Your task to perform on an android device: Do I have any events tomorrow? Image 0: 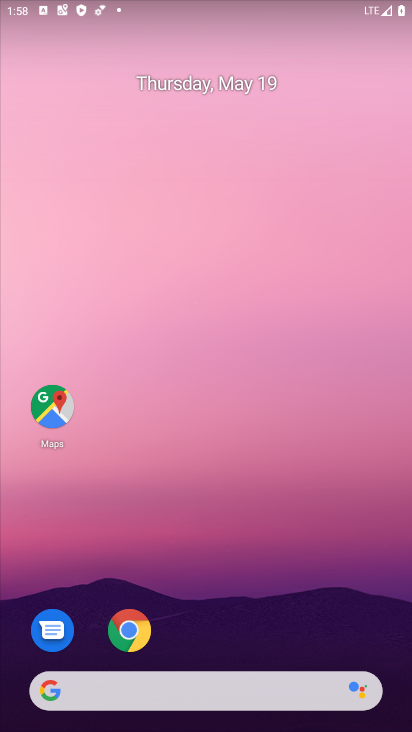
Step 0: click (50, 404)
Your task to perform on an android device: Do I have any events tomorrow? Image 1: 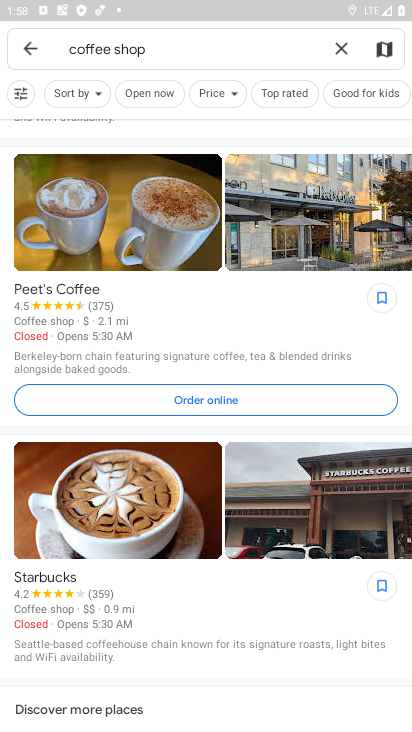
Step 1: click (339, 44)
Your task to perform on an android device: Do I have any events tomorrow? Image 2: 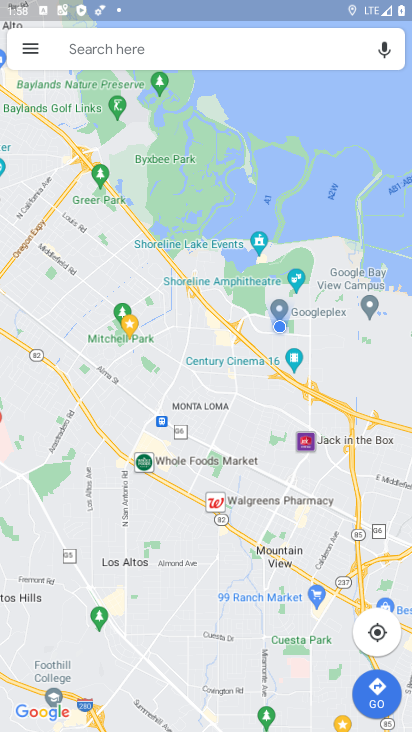
Step 2: press home button
Your task to perform on an android device: Do I have any events tomorrow? Image 3: 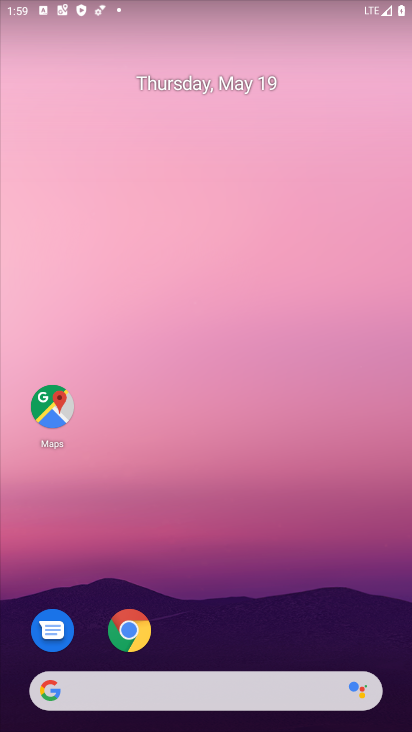
Step 3: drag from (373, 619) to (308, 32)
Your task to perform on an android device: Do I have any events tomorrow? Image 4: 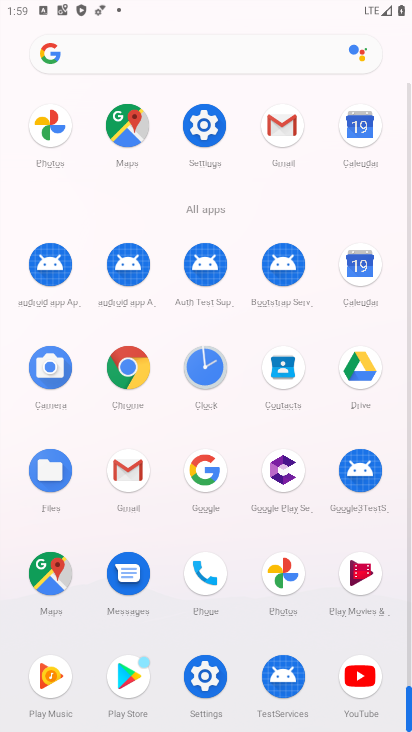
Step 4: click (357, 264)
Your task to perform on an android device: Do I have any events tomorrow? Image 5: 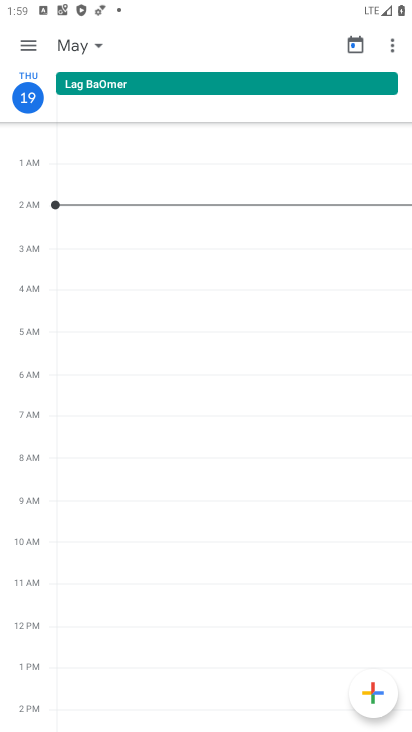
Step 5: click (27, 40)
Your task to perform on an android device: Do I have any events tomorrow? Image 6: 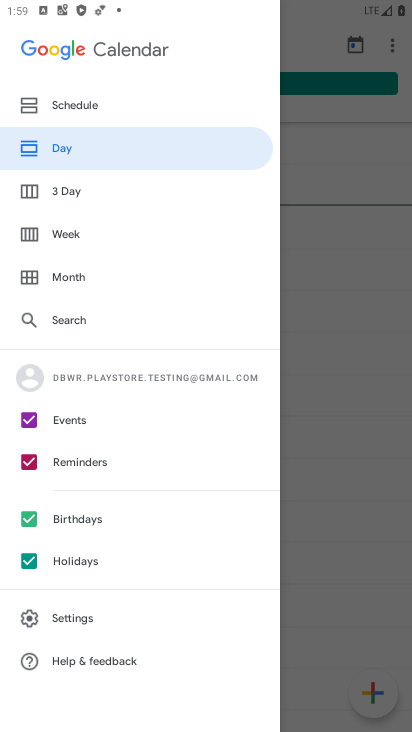
Step 6: click (85, 149)
Your task to perform on an android device: Do I have any events tomorrow? Image 7: 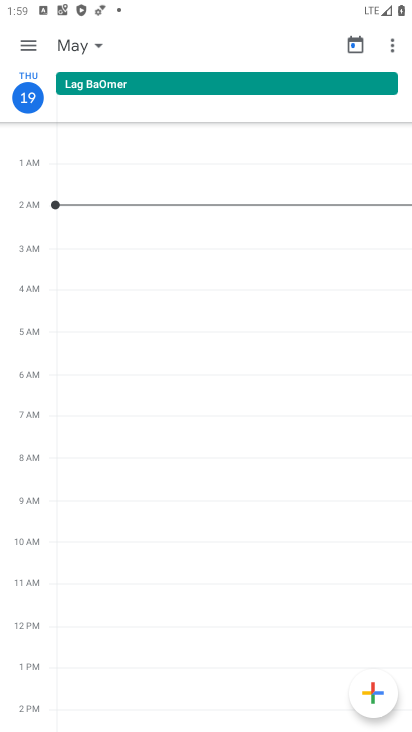
Step 7: click (100, 40)
Your task to perform on an android device: Do I have any events tomorrow? Image 8: 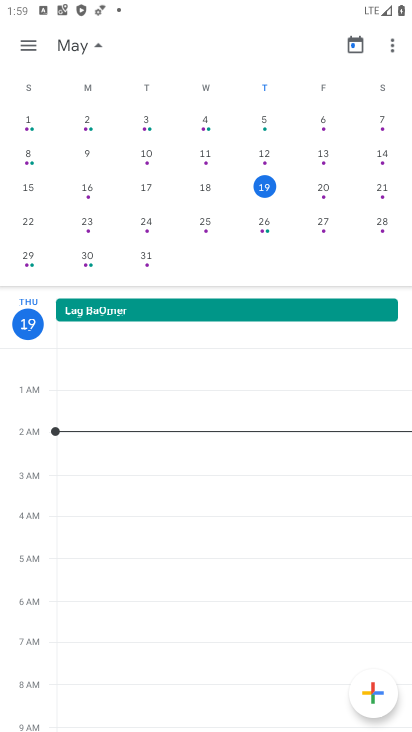
Step 8: click (318, 179)
Your task to perform on an android device: Do I have any events tomorrow? Image 9: 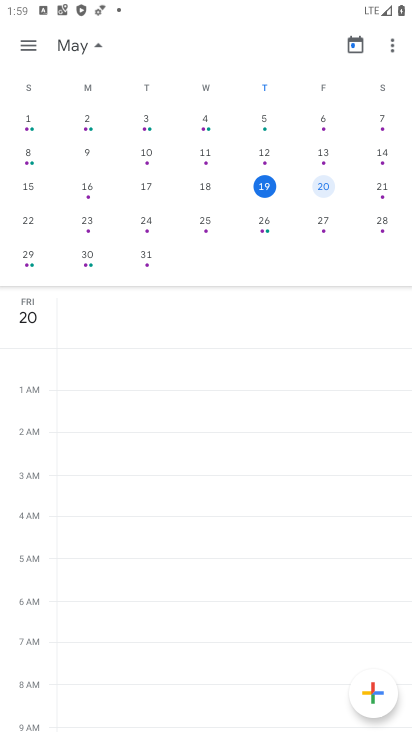
Step 9: task complete